Your task to perform on an android device: turn off notifications in google photos Image 0: 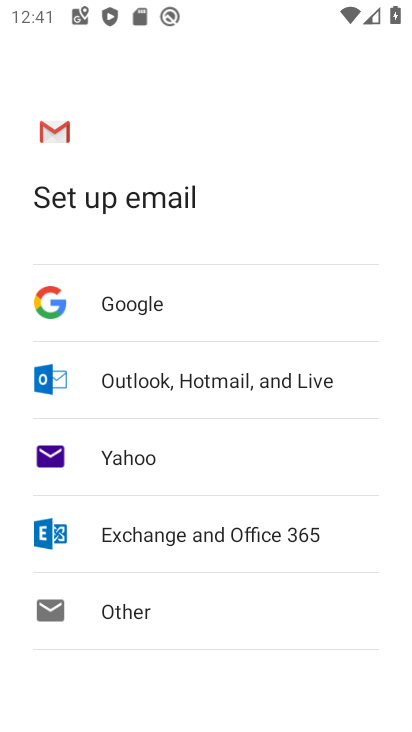
Step 0: press home button
Your task to perform on an android device: turn off notifications in google photos Image 1: 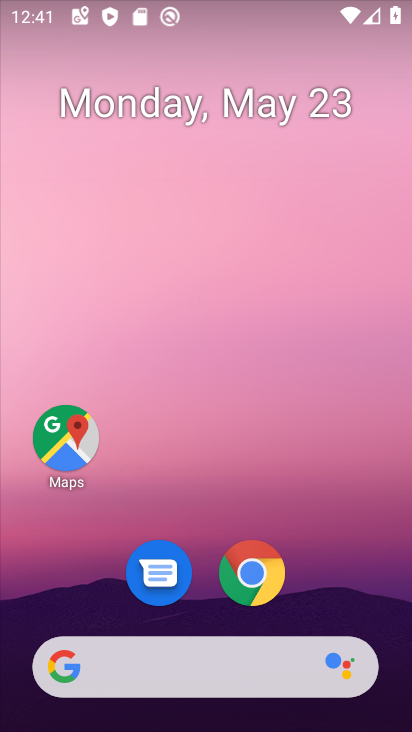
Step 1: drag from (255, 711) to (345, 2)
Your task to perform on an android device: turn off notifications in google photos Image 2: 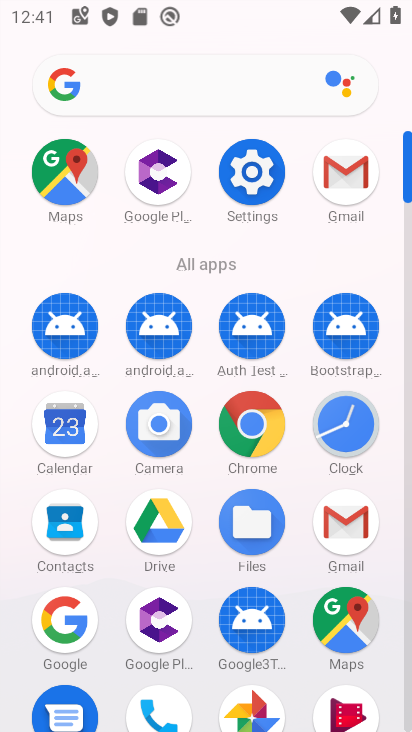
Step 2: drag from (297, 631) to (323, 279)
Your task to perform on an android device: turn off notifications in google photos Image 3: 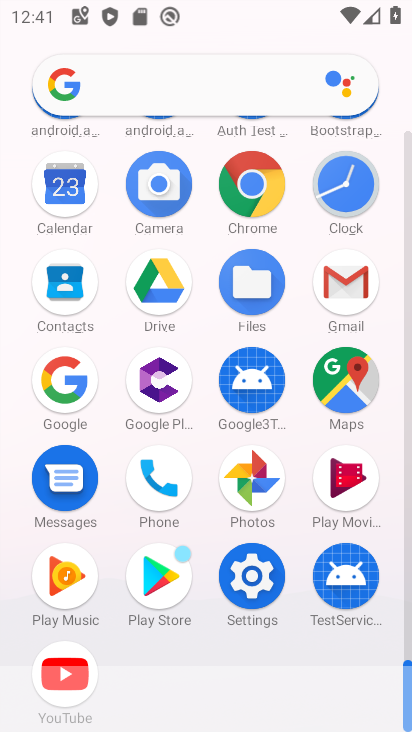
Step 3: click (264, 492)
Your task to perform on an android device: turn off notifications in google photos Image 4: 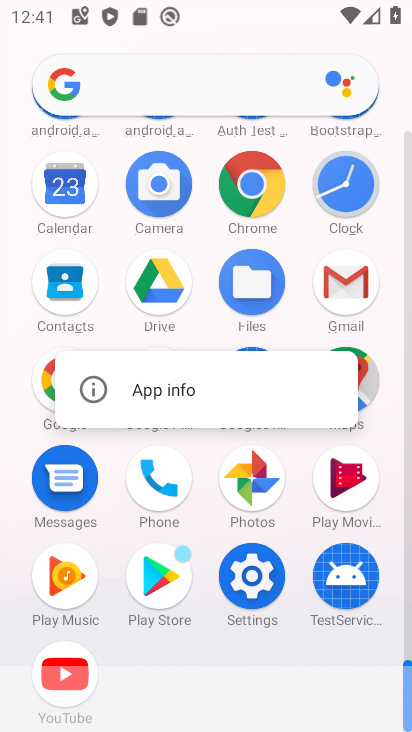
Step 4: click (264, 481)
Your task to perform on an android device: turn off notifications in google photos Image 5: 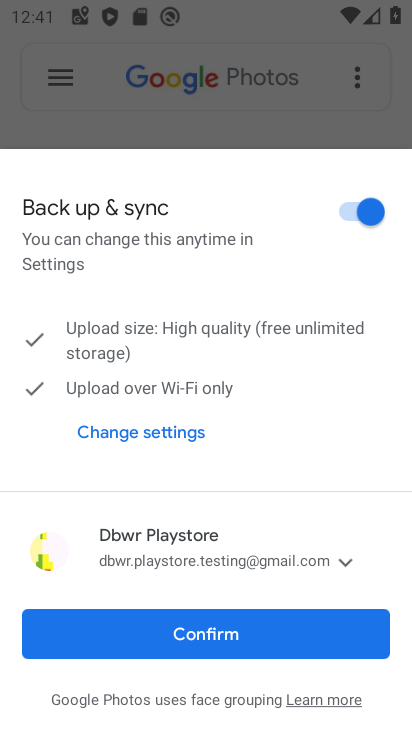
Step 5: click (258, 637)
Your task to perform on an android device: turn off notifications in google photos Image 6: 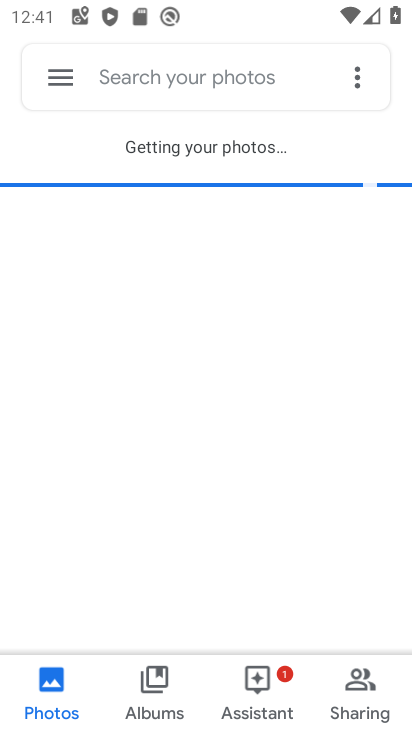
Step 6: click (59, 76)
Your task to perform on an android device: turn off notifications in google photos Image 7: 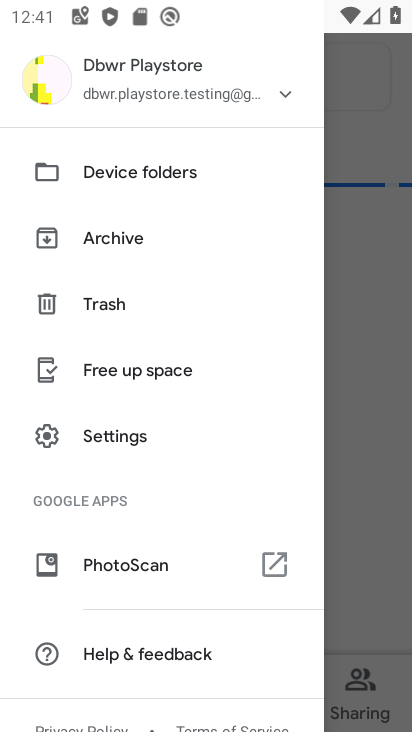
Step 7: click (129, 434)
Your task to perform on an android device: turn off notifications in google photos Image 8: 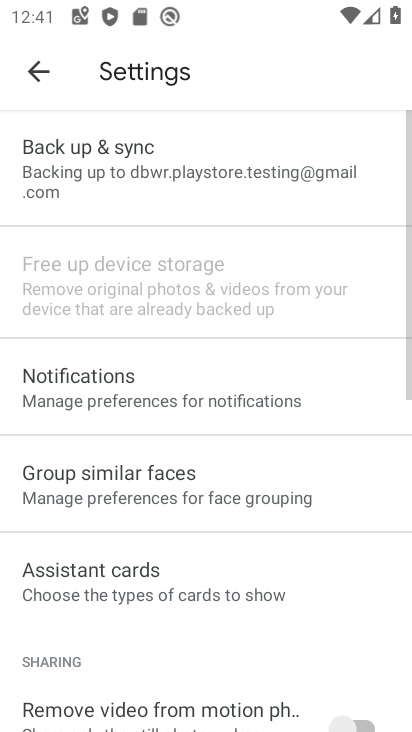
Step 8: click (136, 411)
Your task to perform on an android device: turn off notifications in google photos Image 9: 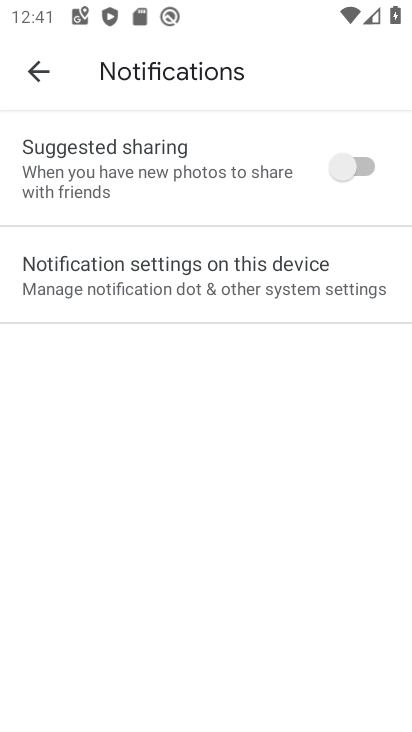
Step 9: click (160, 324)
Your task to perform on an android device: turn off notifications in google photos Image 10: 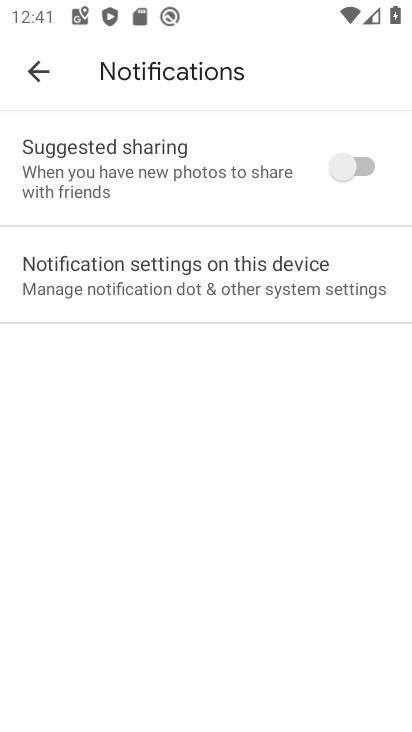
Step 10: click (164, 317)
Your task to perform on an android device: turn off notifications in google photos Image 11: 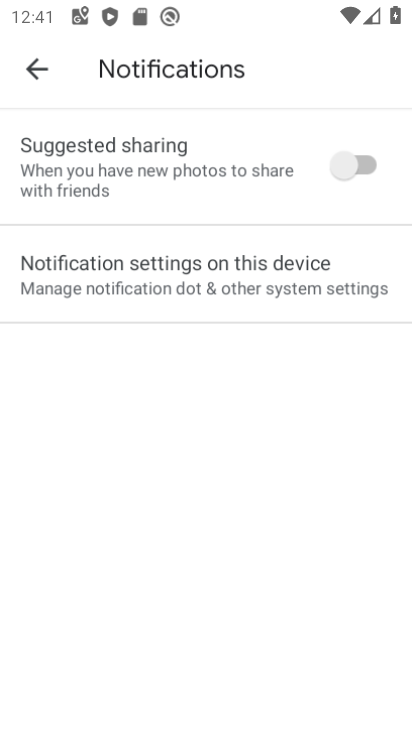
Step 11: click (173, 280)
Your task to perform on an android device: turn off notifications in google photos Image 12: 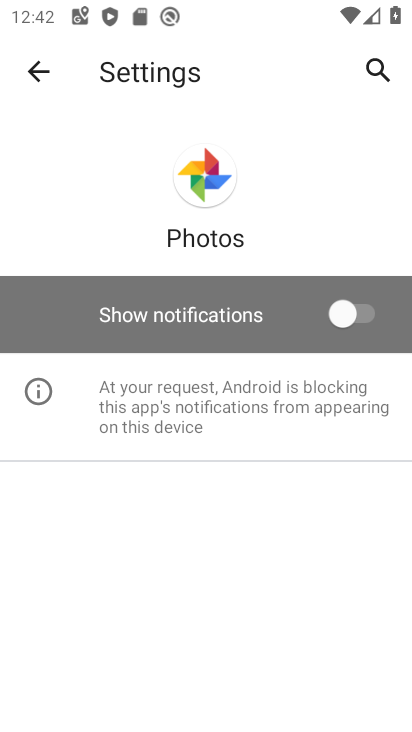
Step 12: task complete